Your task to perform on an android device: add a contact Image 0: 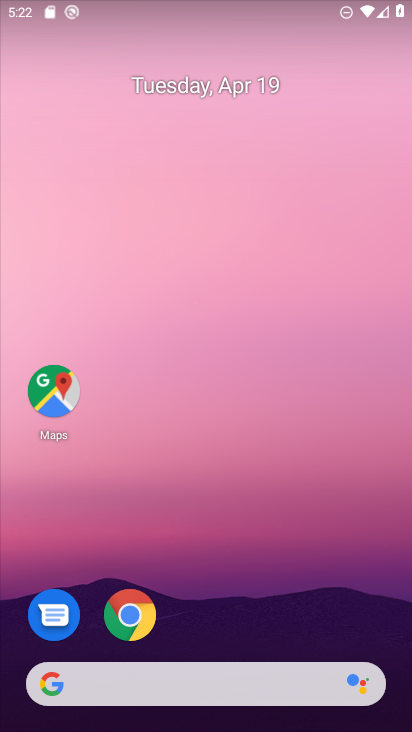
Step 0: drag from (196, 684) to (211, 105)
Your task to perform on an android device: add a contact Image 1: 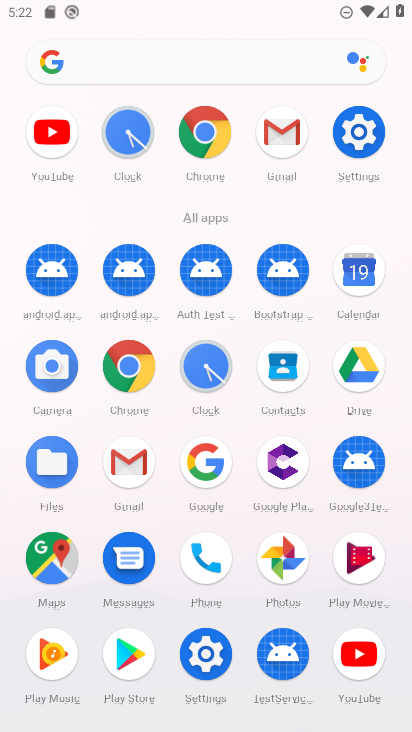
Step 1: click (277, 366)
Your task to perform on an android device: add a contact Image 2: 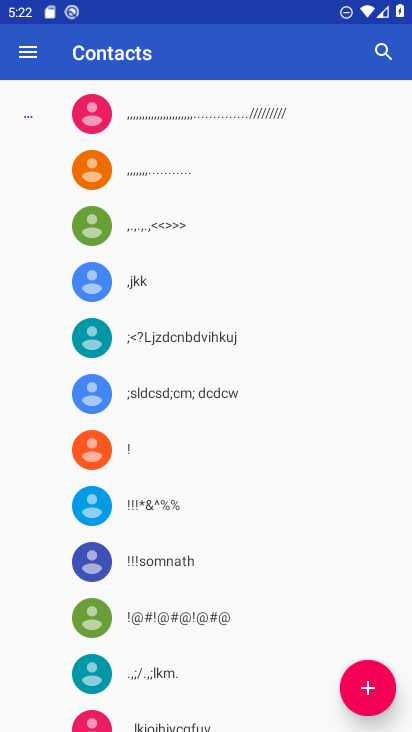
Step 2: click (368, 682)
Your task to perform on an android device: add a contact Image 3: 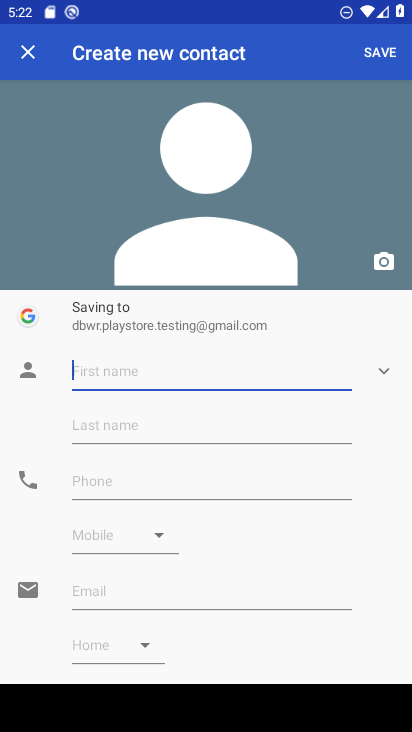
Step 3: type "nody"
Your task to perform on an android device: add a contact Image 4: 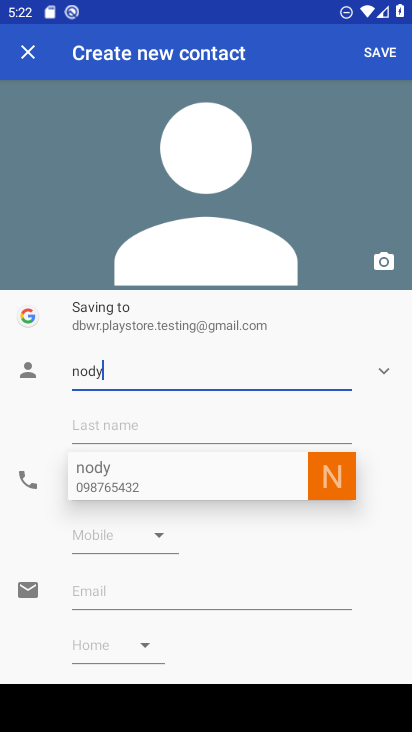
Step 4: type "sss"
Your task to perform on an android device: add a contact Image 5: 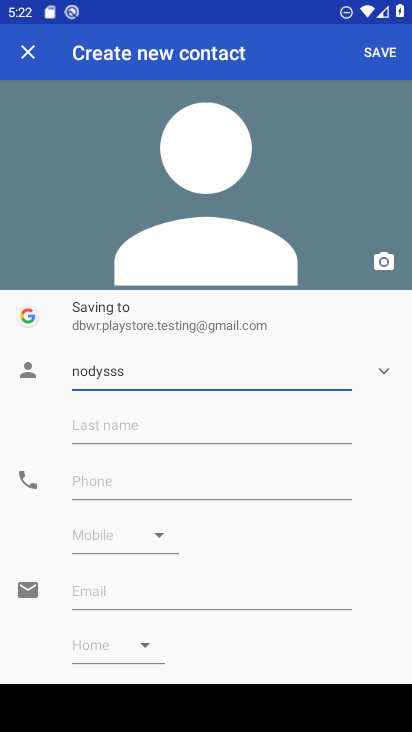
Step 5: click (114, 482)
Your task to perform on an android device: add a contact Image 6: 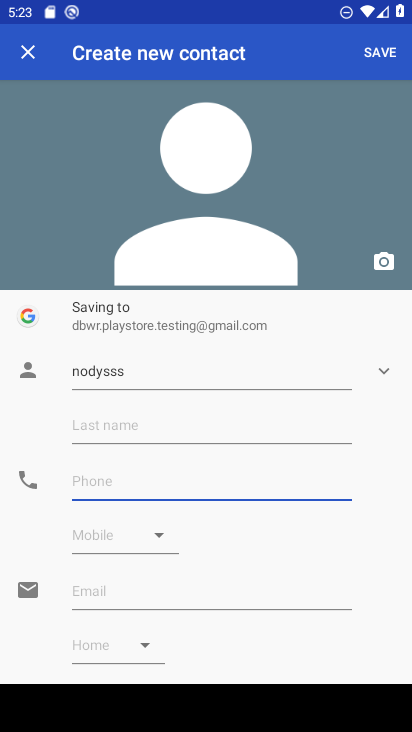
Step 6: type "9876543"
Your task to perform on an android device: add a contact Image 7: 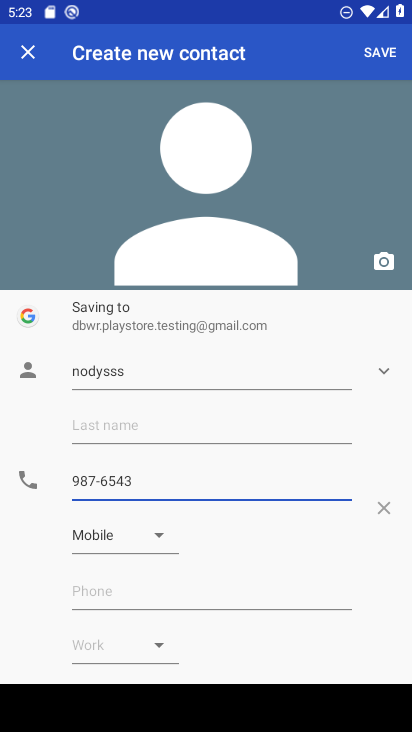
Step 7: click (377, 53)
Your task to perform on an android device: add a contact Image 8: 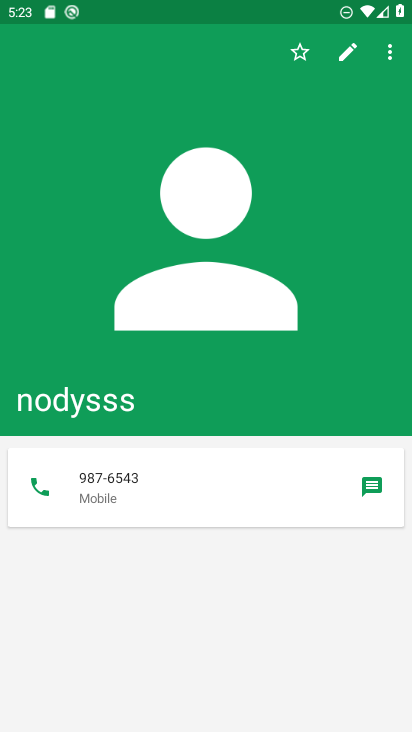
Step 8: task complete